Your task to perform on an android device: Open the contacts Image 0: 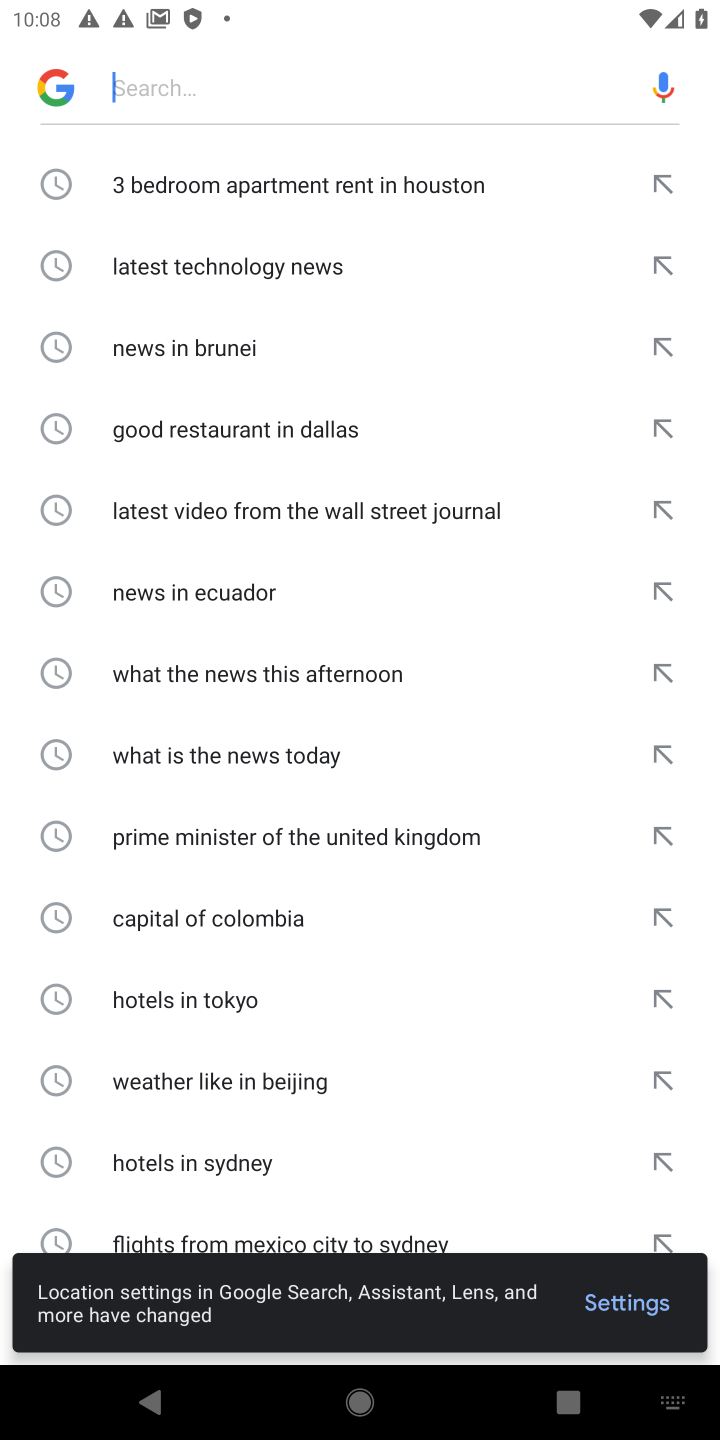
Step 0: press home button
Your task to perform on an android device: Open the contacts Image 1: 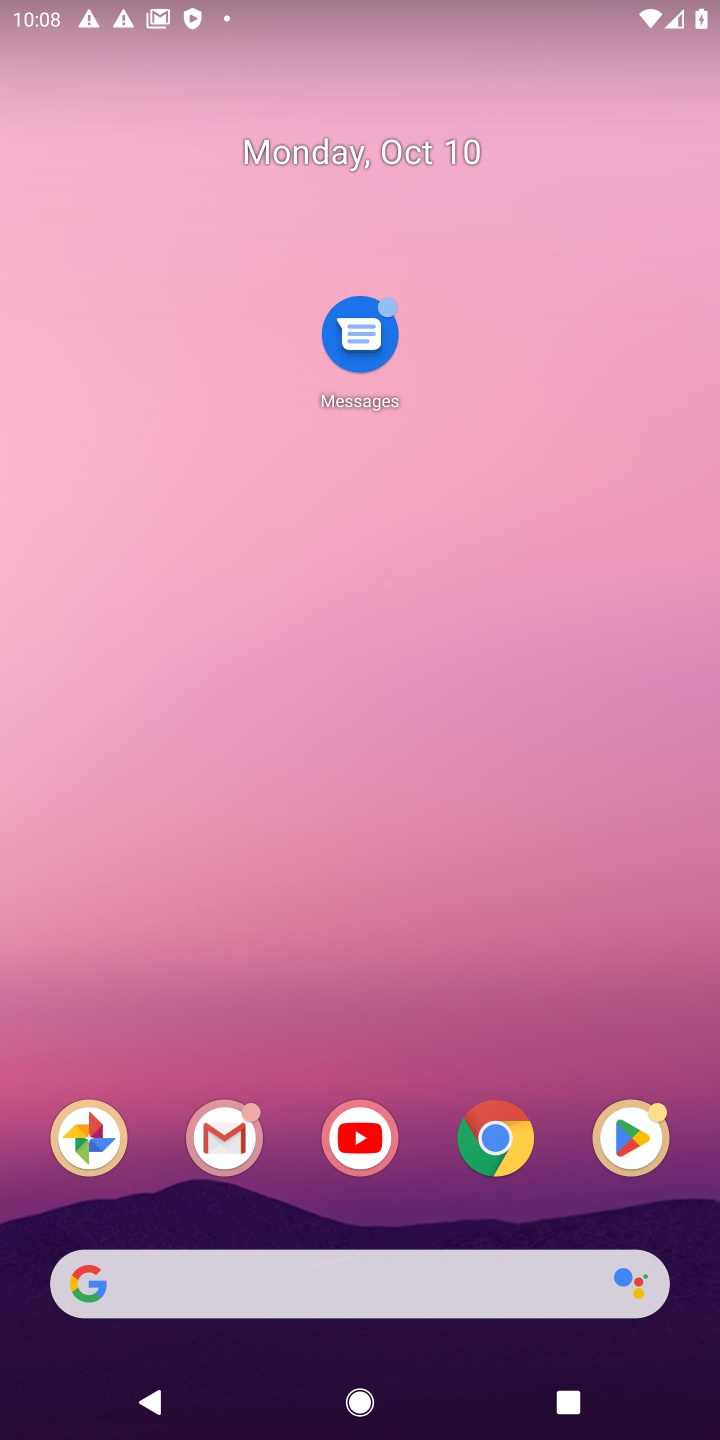
Step 1: drag from (385, 853) to (385, 585)
Your task to perform on an android device: Open the contacts Image 2: 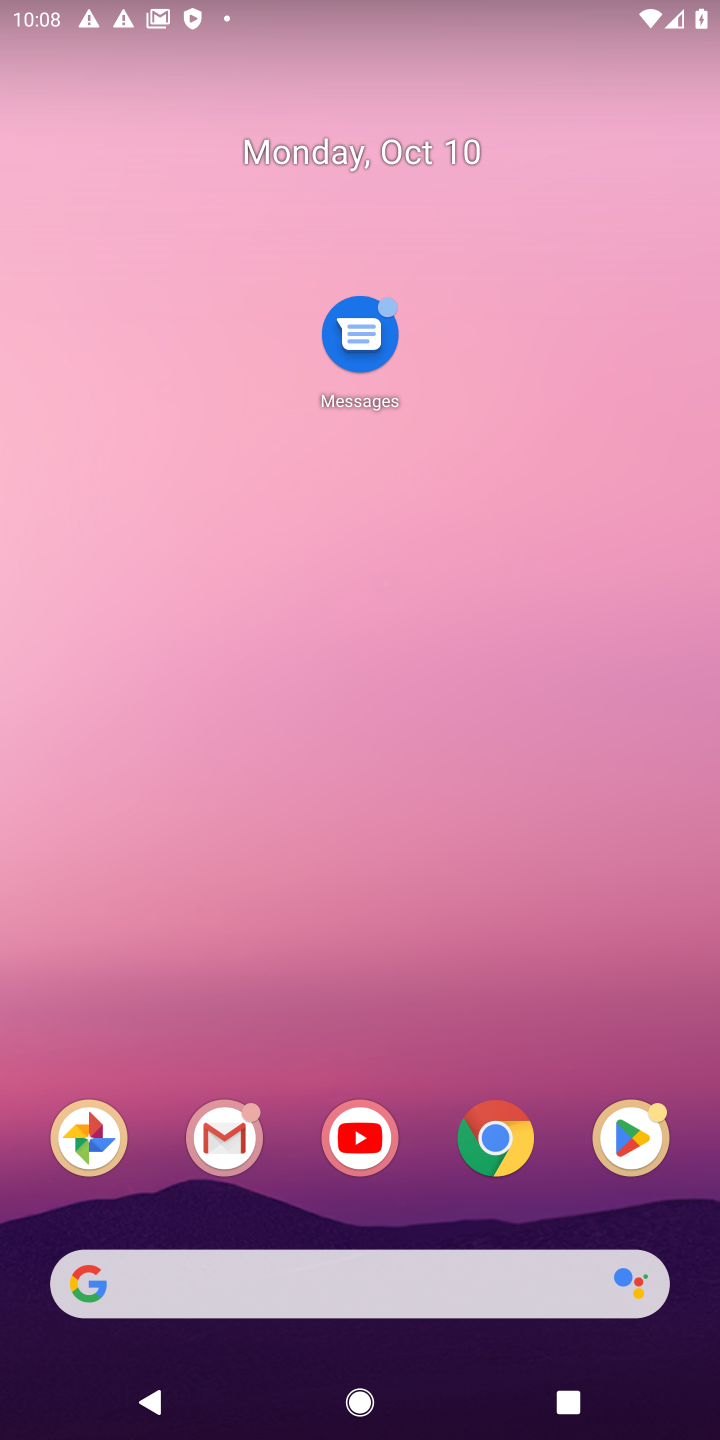
Step 2: drag from (14, 1225) to (139, 316)
Your task to perform on an android device: Open the contacts Image 3: 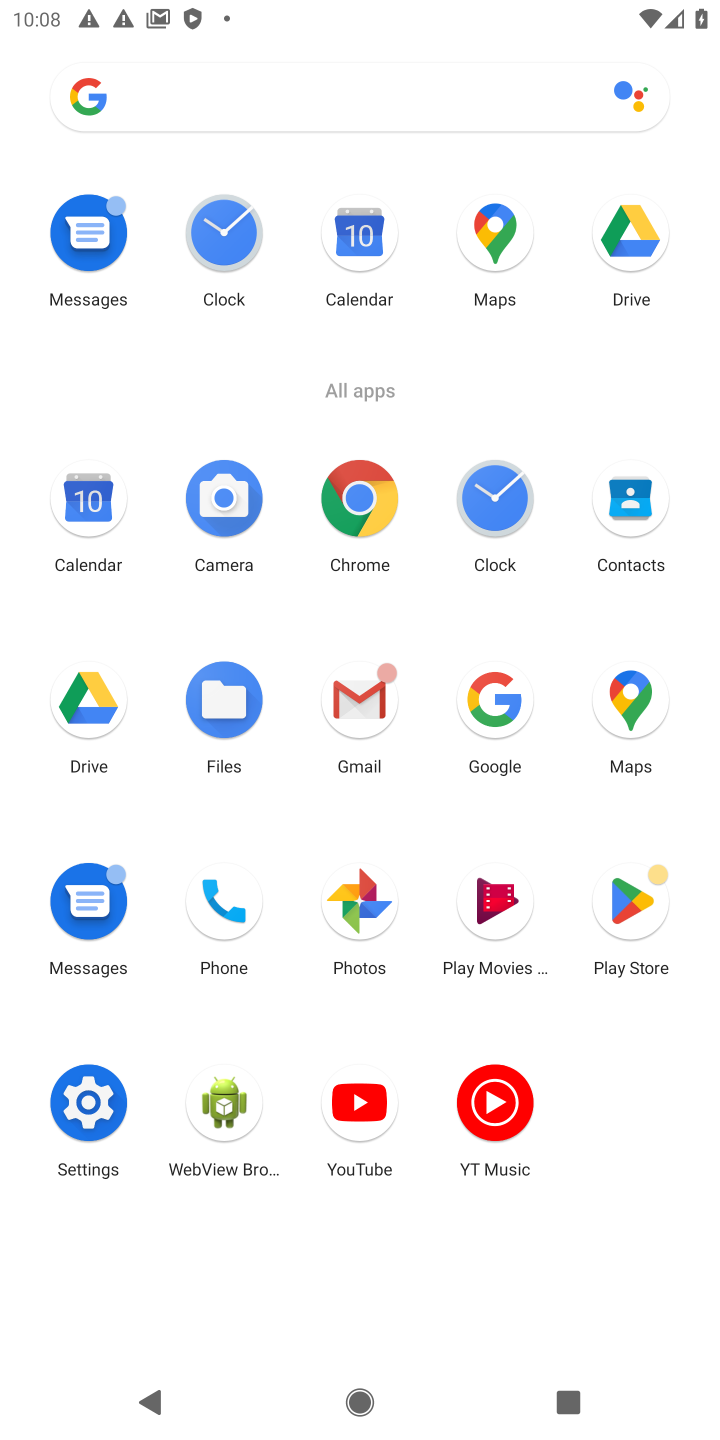
Step 3: click (626, 516)
Your task to perform on an android device: Open the contacts Image 4: 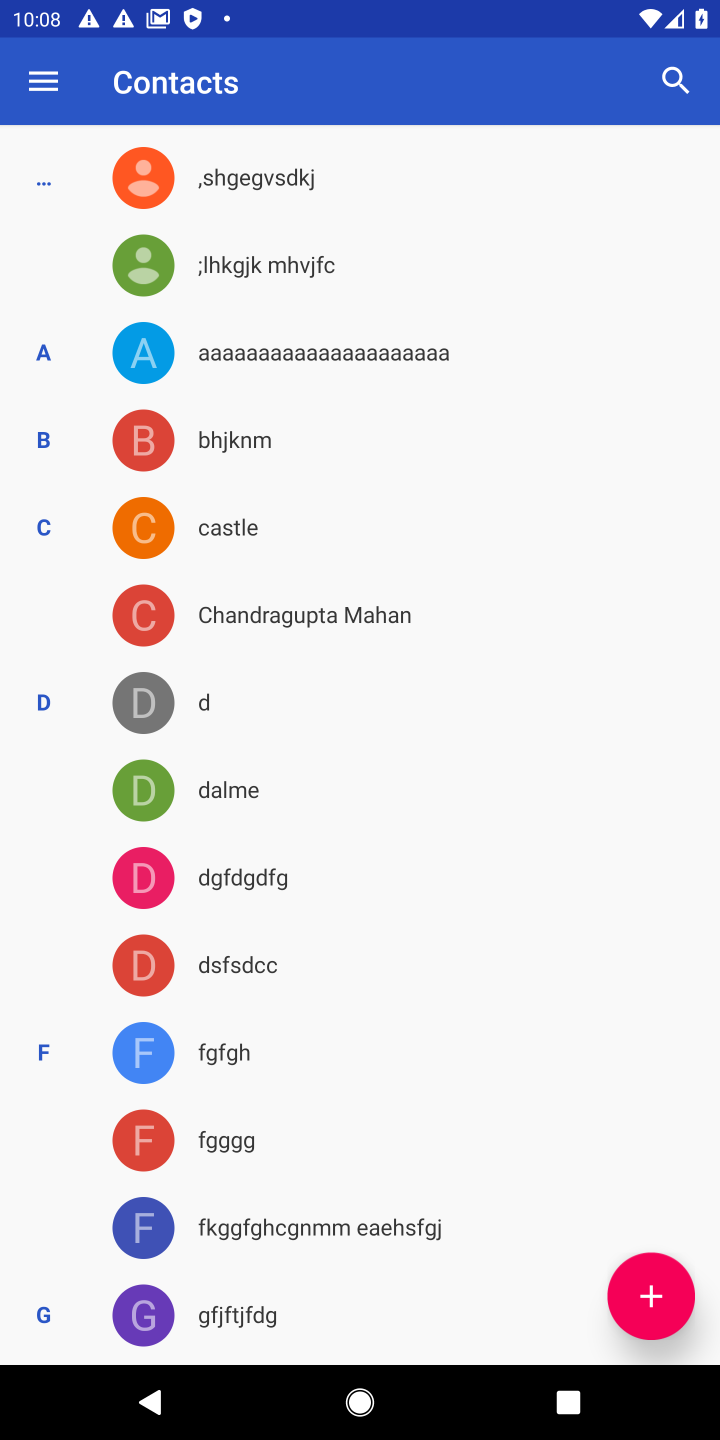
Step 4: task complete